Your task to perform on an android device: Show me popular games on the Play Store Image 0: 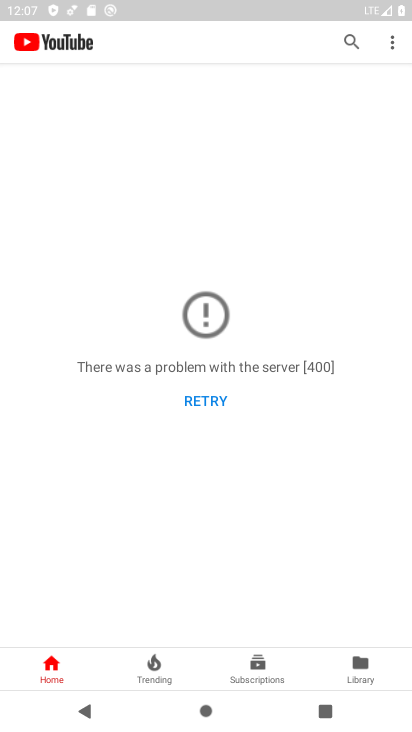
Step 0: press home button
Your task to perform on an android device: Show me popular games on the Play Store Image 1: 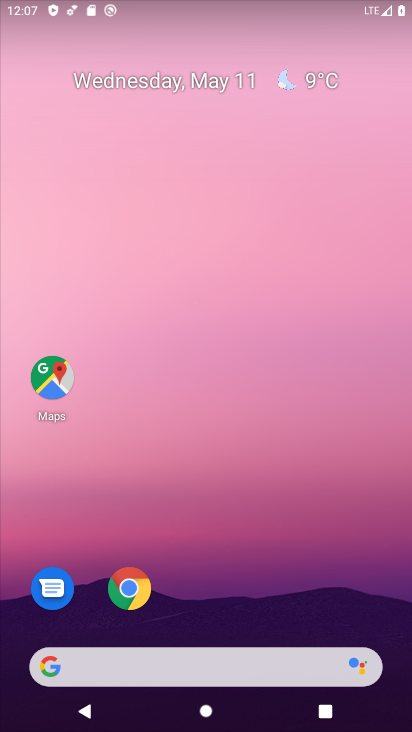
Step 1: drag from (388, 634) to (402, 50)
Your task to perform on an android device: Show me popular games on the Play Store Image 2: 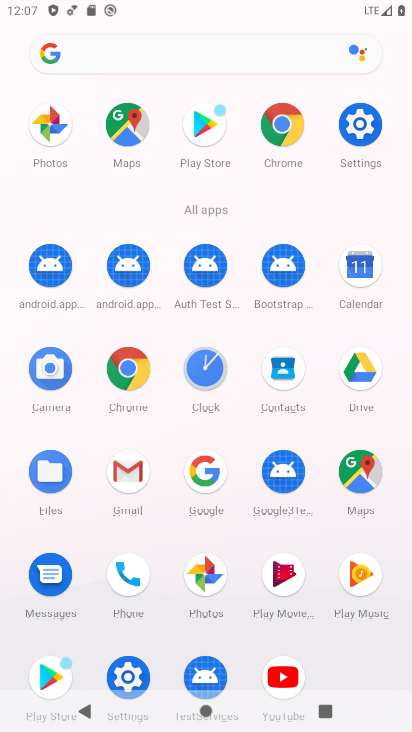
Step 2: click (39, 678)
Your task to perform on an android device: Show me popular games on the Play Store Image 3: 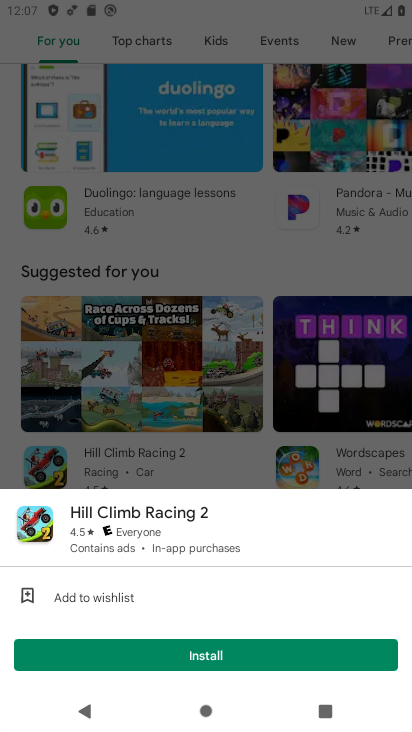
Step 3: drag from (363, 448) to (344, 344)
Your task to perform on an android device: Show me popular games on the Play Store Image 4: 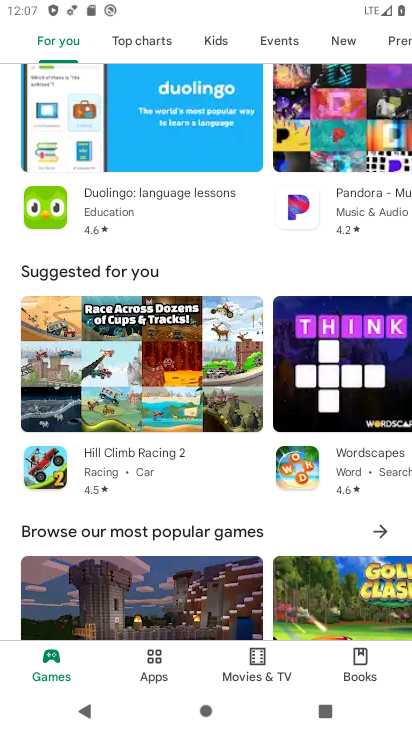
Step 4: drag from (190, 320) to (197, 247)
Your task to perform on an android device: Show me popular games on the Play Store Image 5: 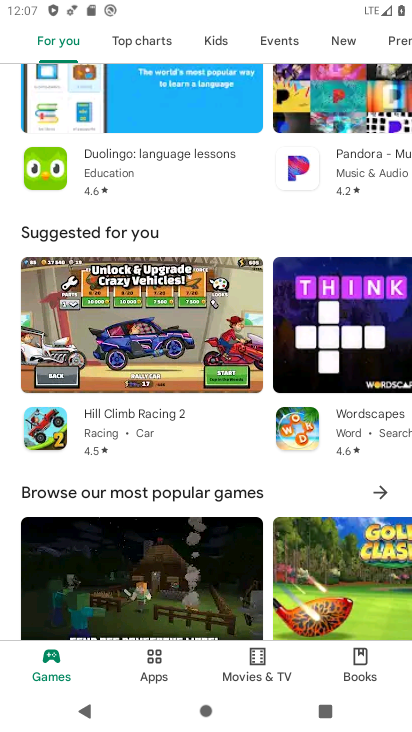
Step 5: drag from (173, 526) to (194, 241)
Your task to perform on an android device: Show me popular games on the Play Store Image 6: 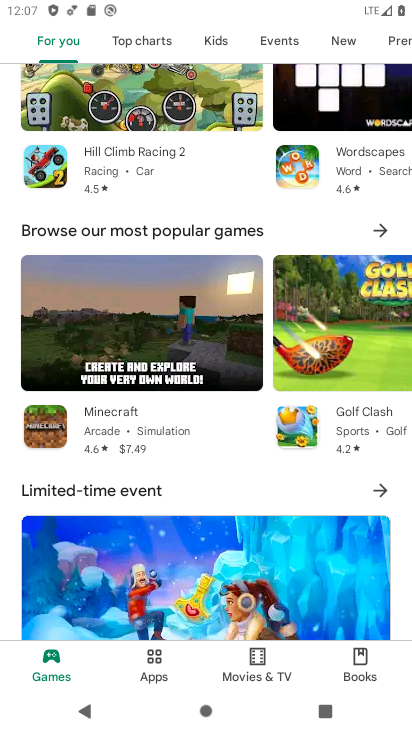
Step 6: click (246, 234)
Your task to perform on an android device: Show me popular games on the Play Store Image 7: 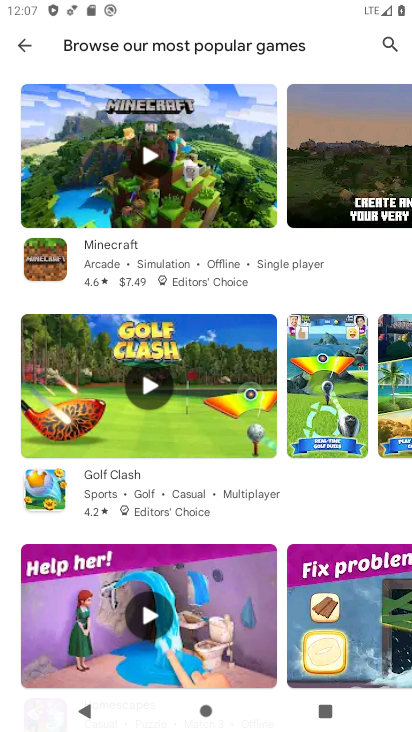
Step 7: task complete